Your task to perform on an android device: find photos in the google photos app Image 0: 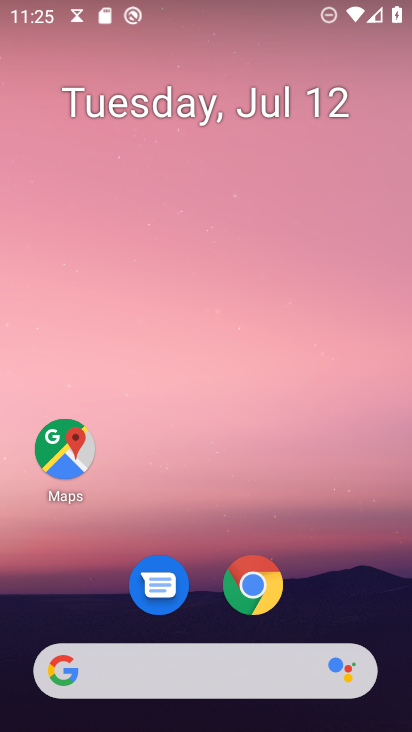
Step 0: drag from (242, 612) to (304, 126)
Your task to perform on an android device: find photos in the google photos app Image 1: 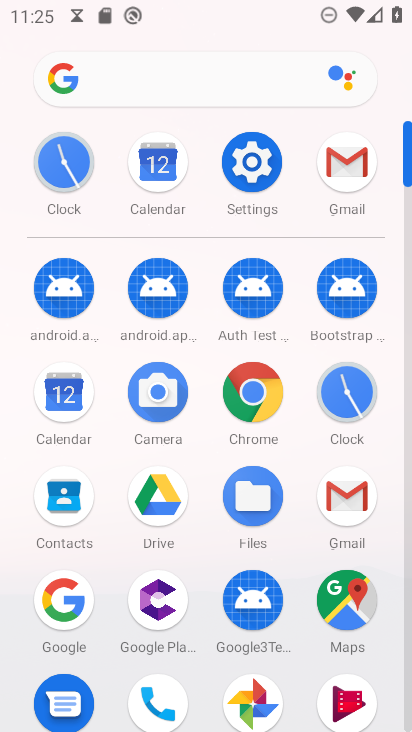
Step 1: click (250, 687)
Your task to perform on an android device: find photos in the google photos app Image 2: 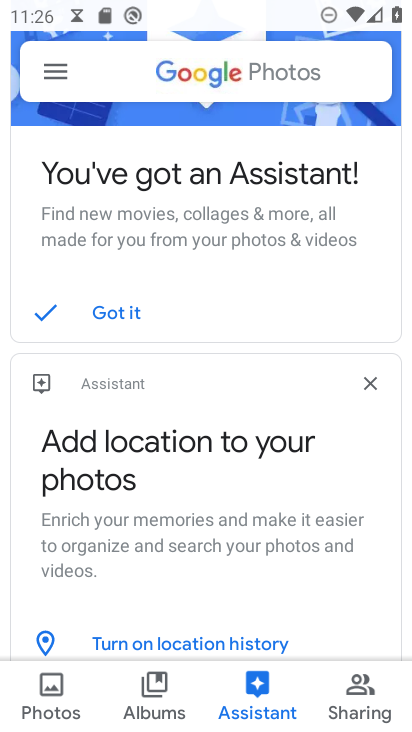
Step 2: click (48, 700)
Your task to perform on an android device: find photos in the google photos app Image 3: 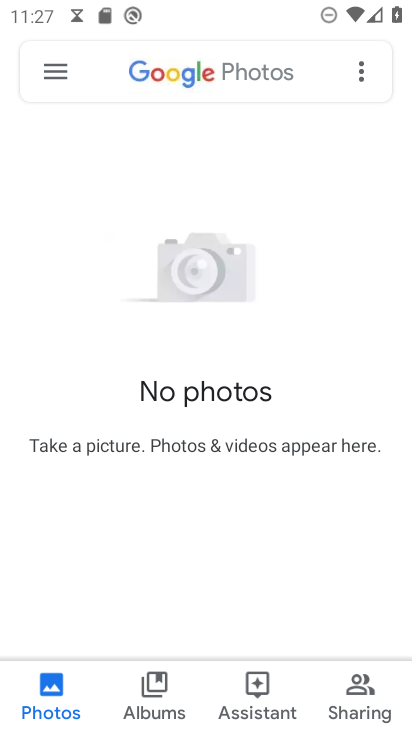
Step 3: task complete